Your task to perform on an android device: find which apps use the phone's location Image 0: 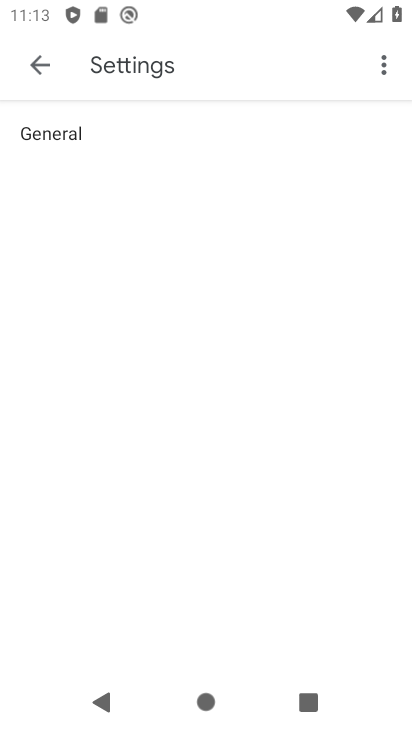
Step 0: press home button
Your task to perform on an android device: find which apps use the phone's location Image 1: 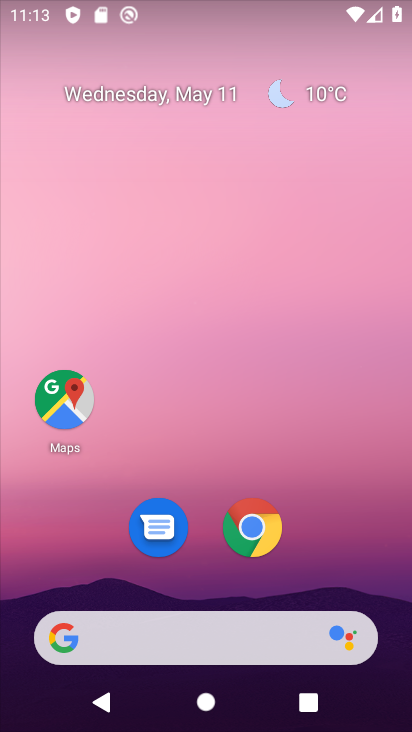
Step 1: drag from (219, 497) to (365, 8)
Your task to perform on an android device: find which apps use the phone's location Image 2: 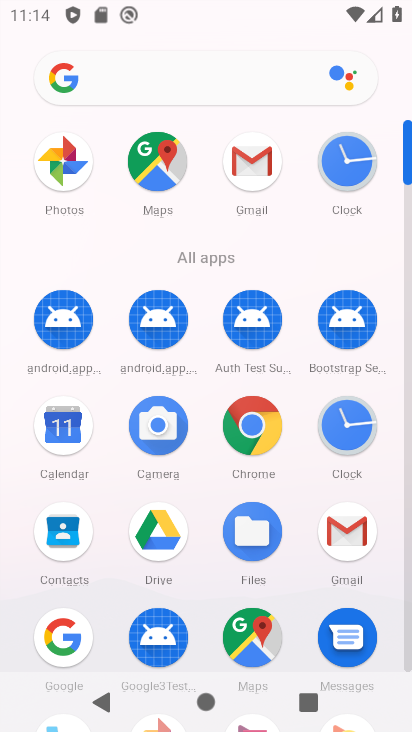
Step 2: drag from (203, 509) to (342, 39)
Your task to perform on an android device: find which apps use the phone's location Image 3: 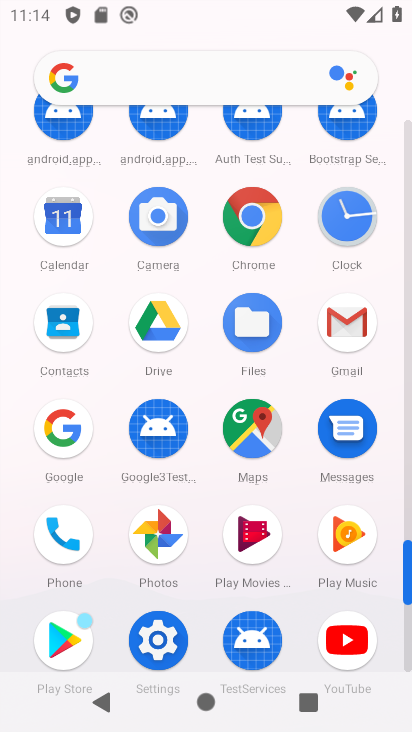
Step 3: click (147, 585)
Your task to perform on an android device: find which apps use the phone's location Image 4: 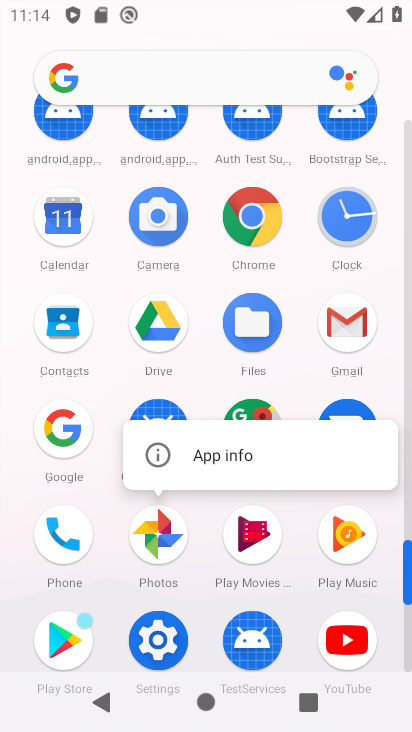
Step 4: click (149, 634)
Your task to perform on an android device: find which apps use the phone's location Image 5: 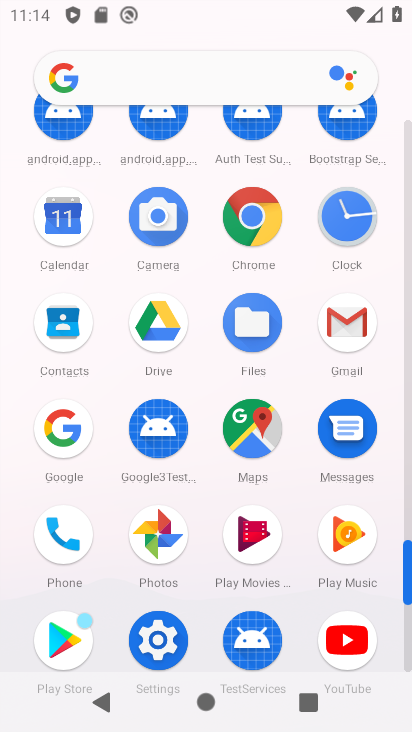
Step 5: click (147, 634)
Your task to perform on an android device: find which apps use the phone's location Image 6: 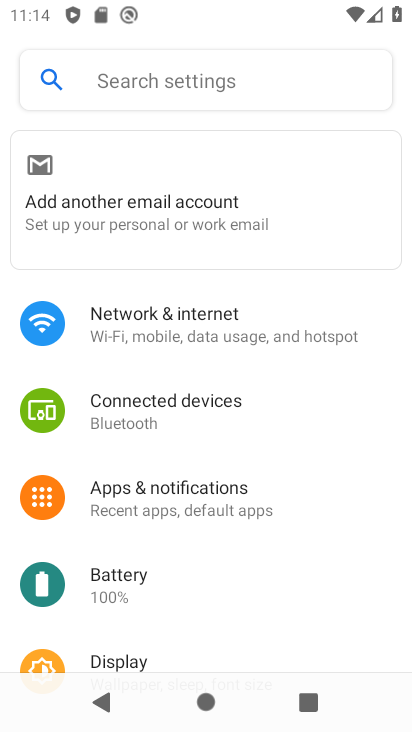
Step 6: drag from (157, 583) to (223, 185)
Your task to perform on an android device: find which apps use the phone's location Image 7: 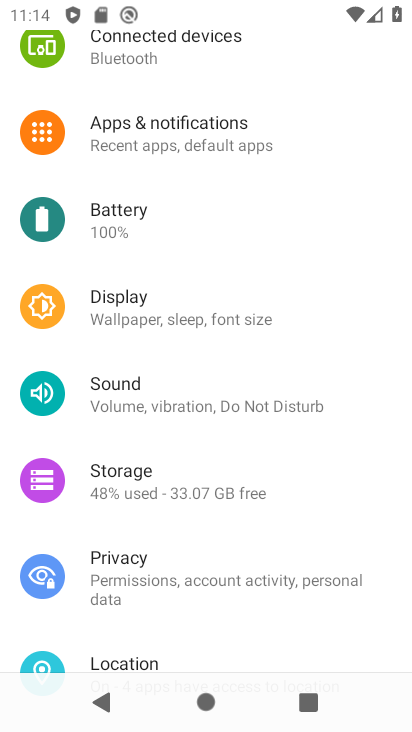
Step 7: click (122, 653)
Your task to perform on an android device: find which apps use the phone's location Image 8: 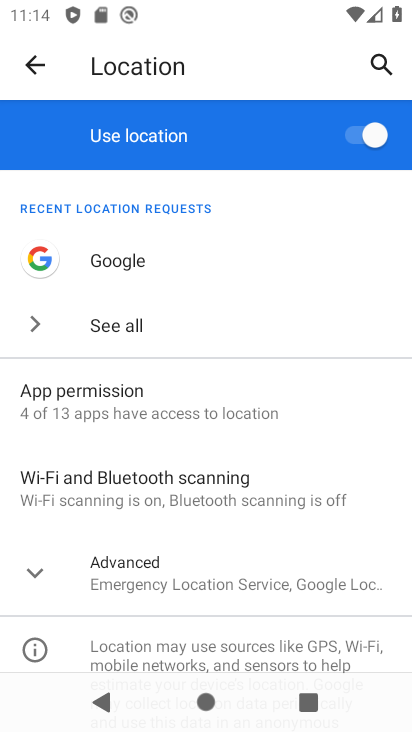
Step 8: click (147, 411)
Your task to perform on an android device: find which apps use the phone's location Image 9: 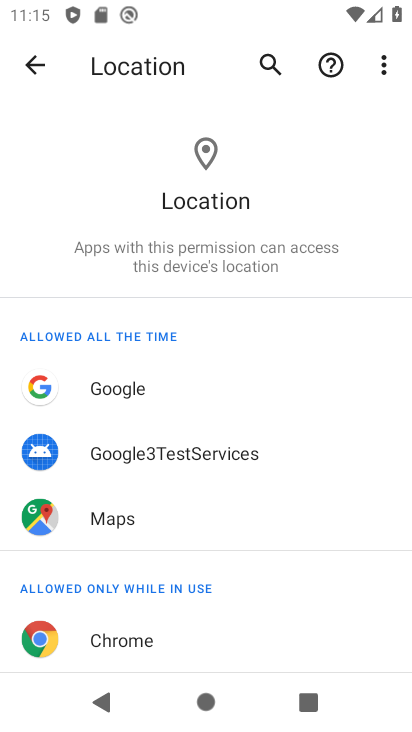
Step 9: press home button
Your task to perform on an android device: find which apps use the phone's location Image 10: 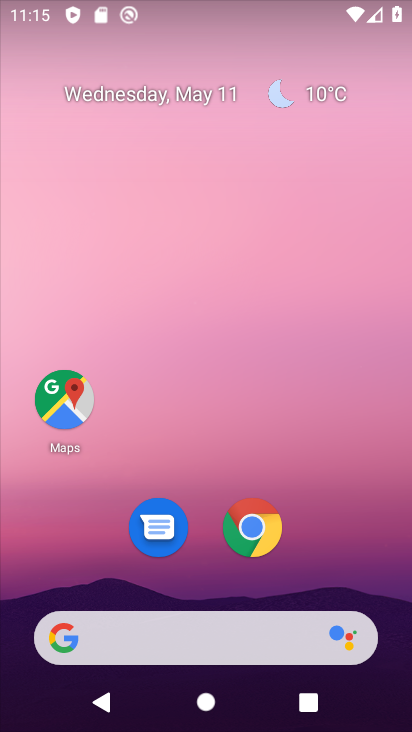
Step 10: drag from (199, 585) to (250, 2)
Your task to perform on an android device: find which apps use the phone's location Image 11: 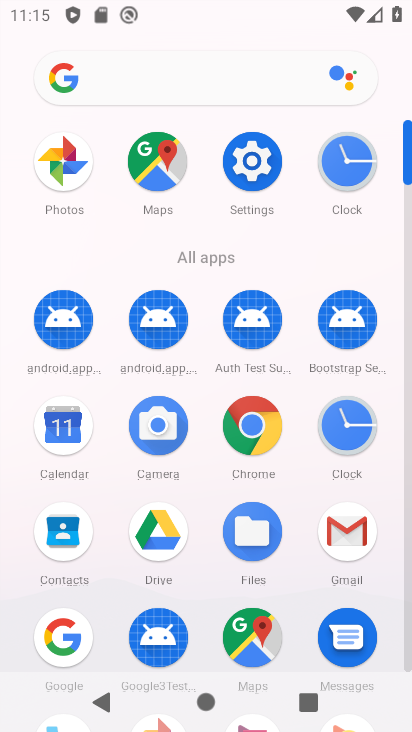
Step 11: click (261, 160)
Your task to perform on an android device: find which apps use the phone's location Image 12: 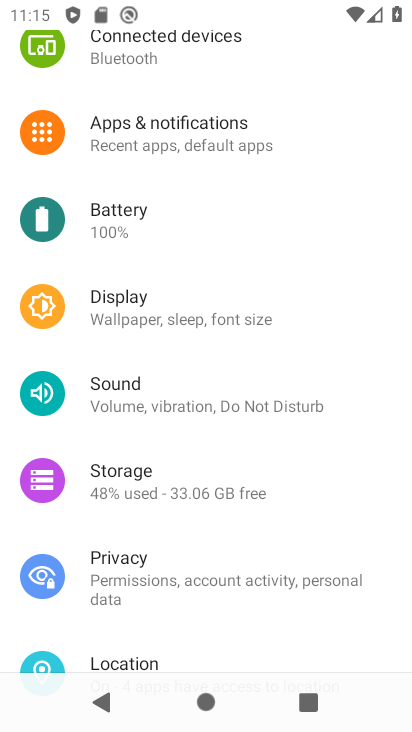
Step 12: drag from (177, 516) to (184, 317)
Your task to perform on an android device: find which apps use the phone's location Image 13: 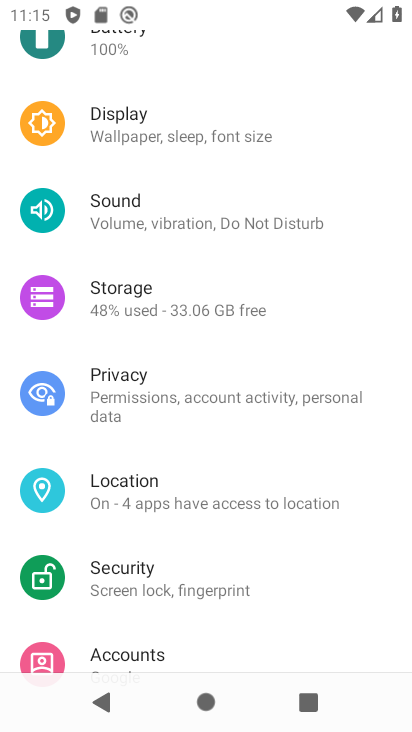
Step 13: click (136, 479)
Your task to perform on an android device: find which apps use the phone's location Image 14: 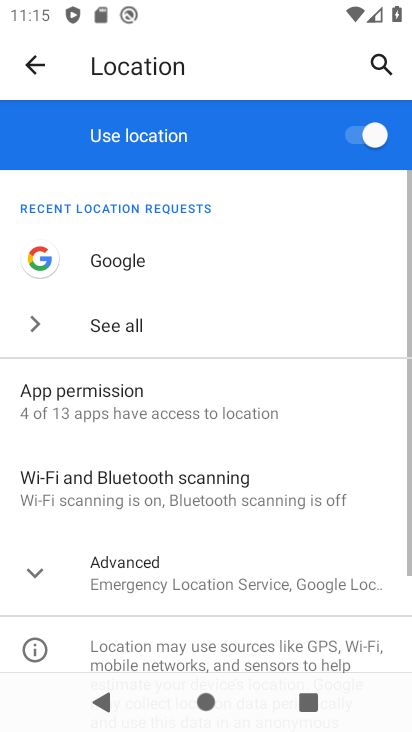
Step 14: click (179, 400)
Your task to perform on an android device: find which apps use the phone's location Image 15: 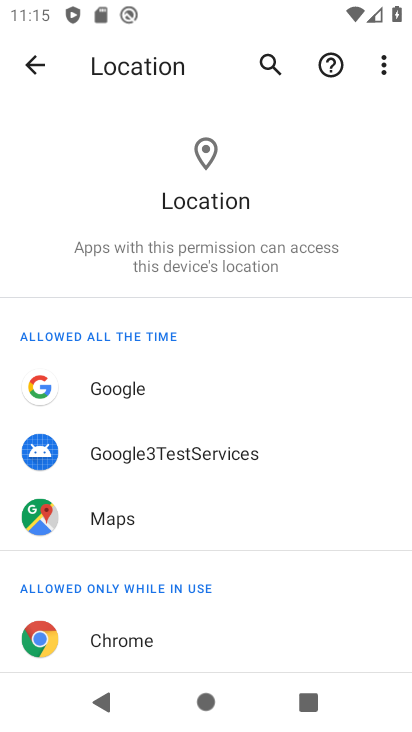
Step 15: task complete